Your task to perform on an android device: Check the news Image 0: 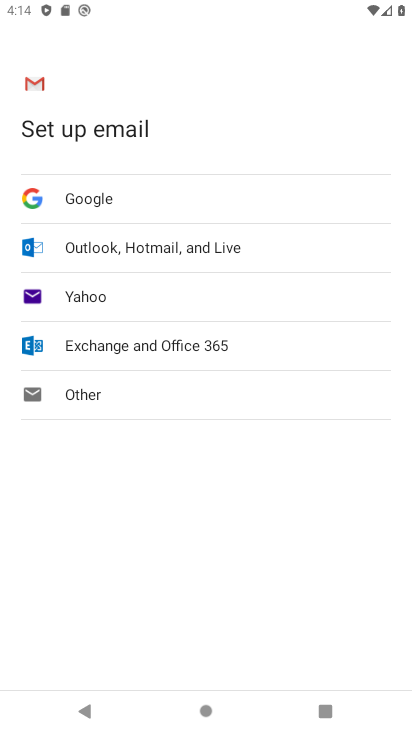
Step 0: press home button
Your task to perform on an android device: Check the news Image 1: 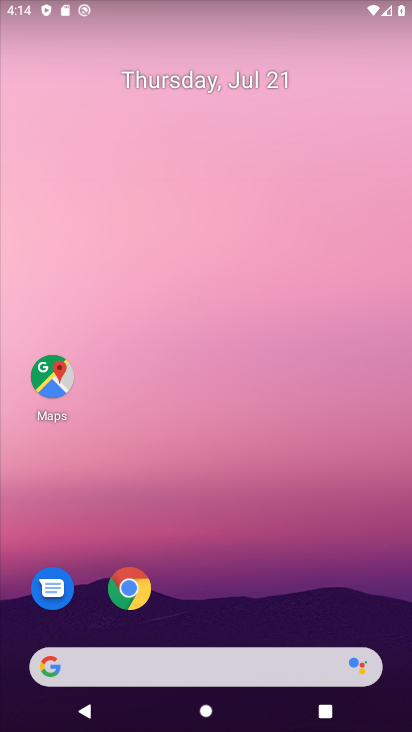
Step 1: click (236, 674)
Your task to perform on an android device: Check the news Image 2: 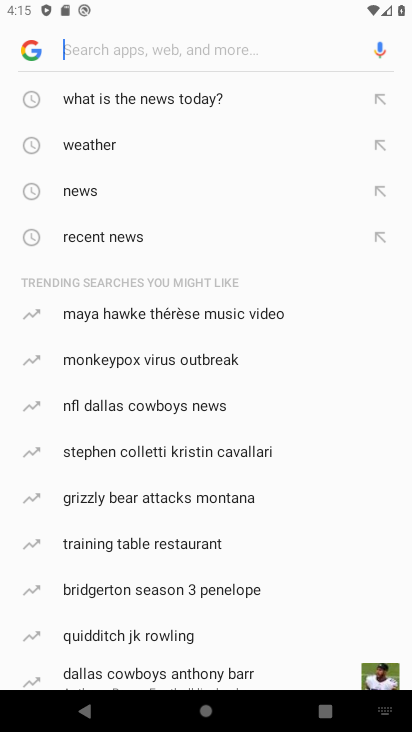
Step 2: type "Check the news"
Your task to perform on an android device: Check the news Image 3: 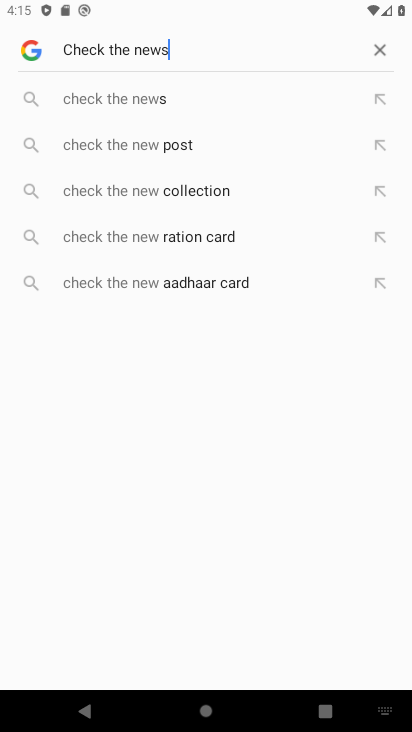
Step 3: press enter
Your task to perform on an android device: Check the news Image 4: 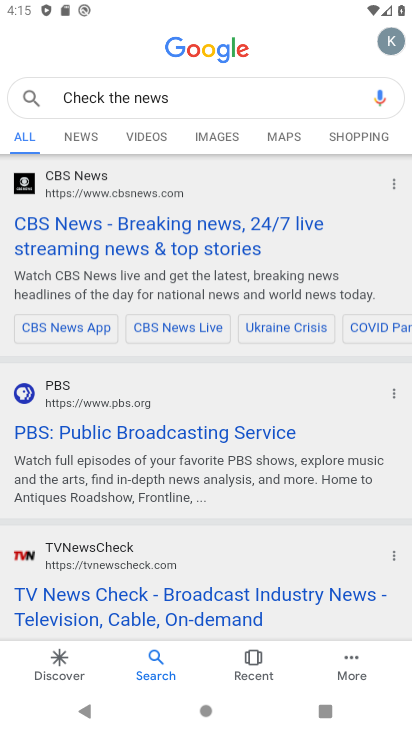
Step 4: task complete